Your task to perform on an android device: Go to location settings Image 0: 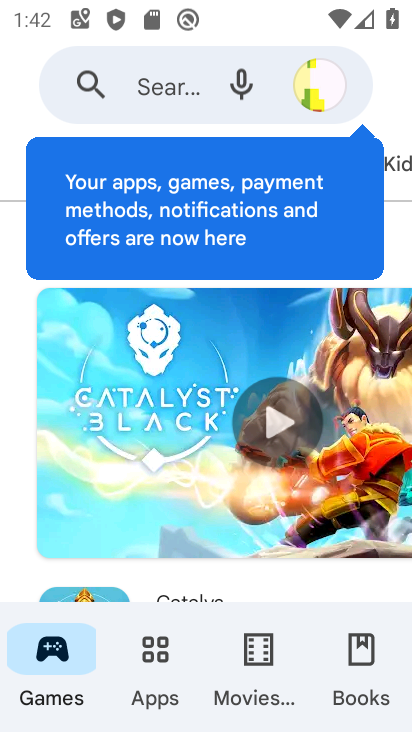
Step 0: press home button
Your task to perform on an android device: Go to location settings Image 1: 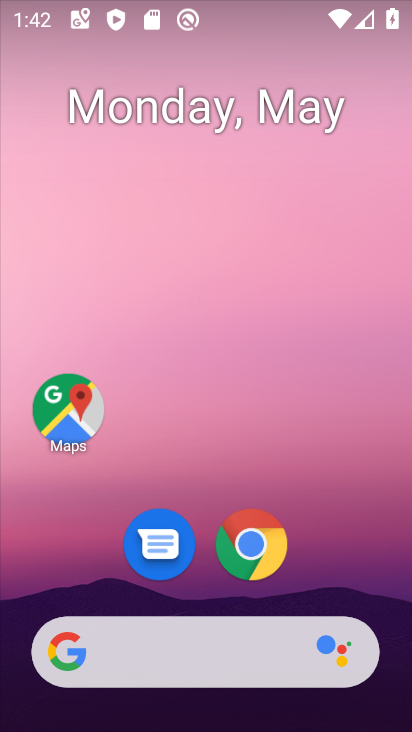
Step 1: drag from (373, 593) to (379, 244)
Your task to perform on an android device: Go to location settings Image 2: 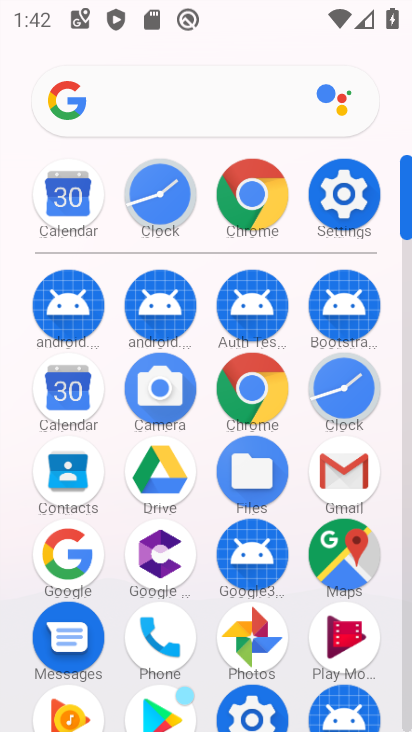
Step 2: click (350, 210)
Your task to perform on an android device: Go to location settings Image 3: 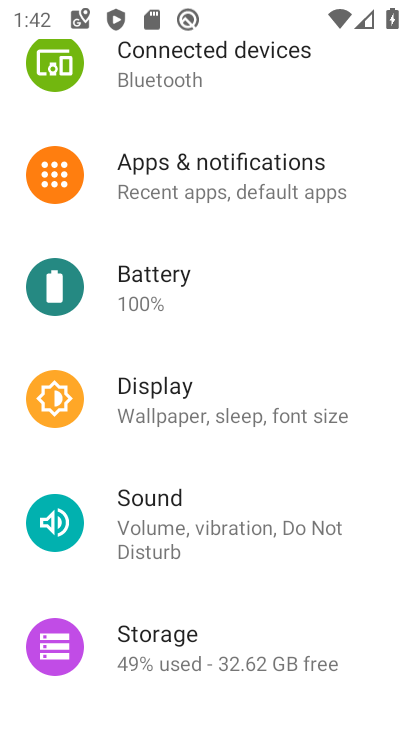
Step 3: drag from (357, 170) to (352, 312)
Your task to perform on an android device: Go to location settings Image 4: 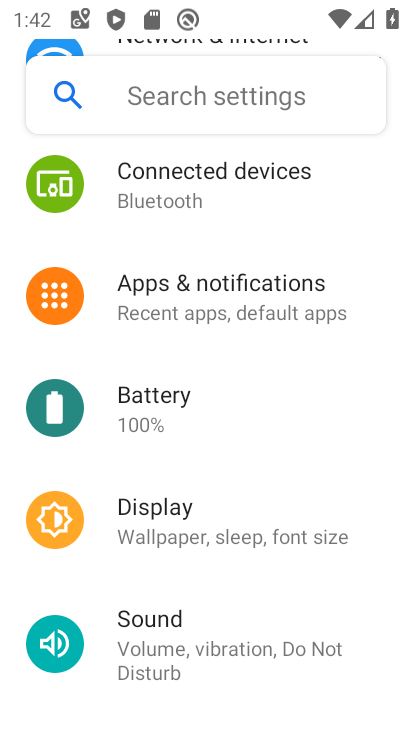
Step 4: drag from (351, 188) to (352, 356)
Your task to perform on an android device: Go to location settings Image 5: 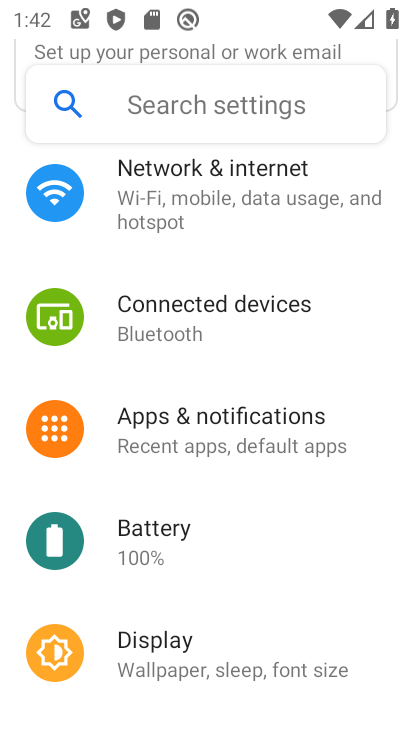
Step 5: drag from (356, 169) to (357, 368)
Your task to perform on an android device: Go to location settings Image 6: 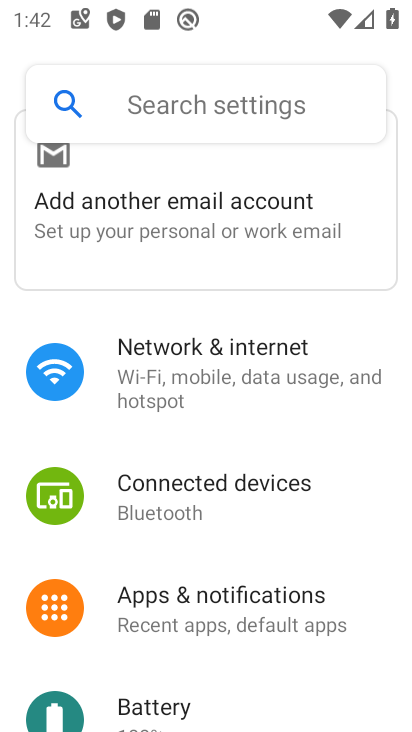
Step 6: drag from (353, 188) to (345, 395)
Your task to perform on an android device: Go to location settings Image 7: 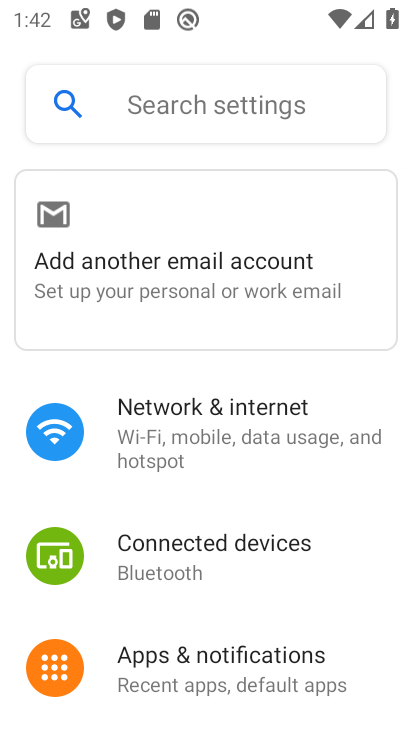
Step 7: drag from (345, 411) to (357, 283)
Your task to perform on an android device: Go to location settings Image 8: 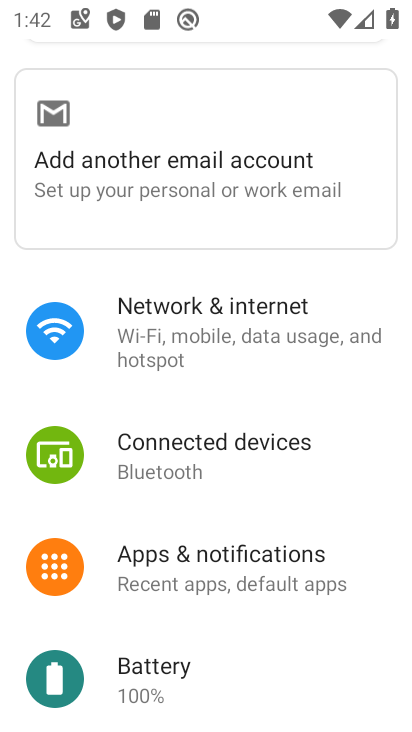
Step 8: drag from (347, 450) to (350, 290)
Your task to perform on an android device: Go to location settings Image 9: 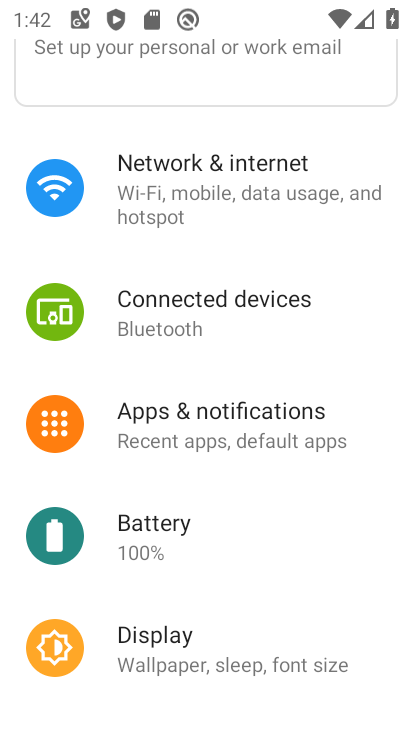
Step 9: drag from (352, 509) to (358, 364)
Your task to perform on an android device: Go to location settings Image 10: 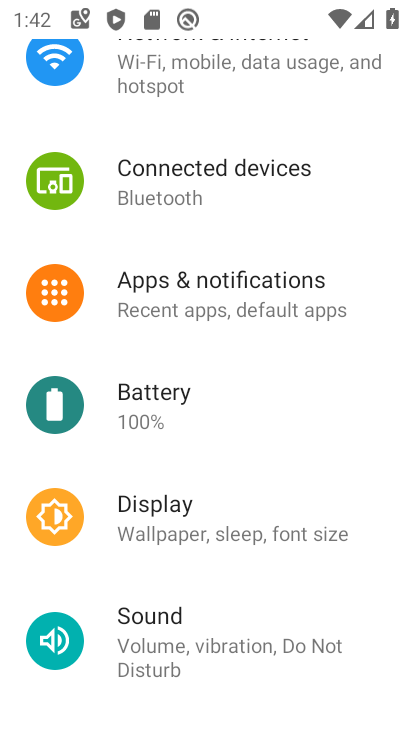
Step 10: drag from (358, 508) to (371, 380)
Your task to perform on an android device: Go to location settings Image 11: 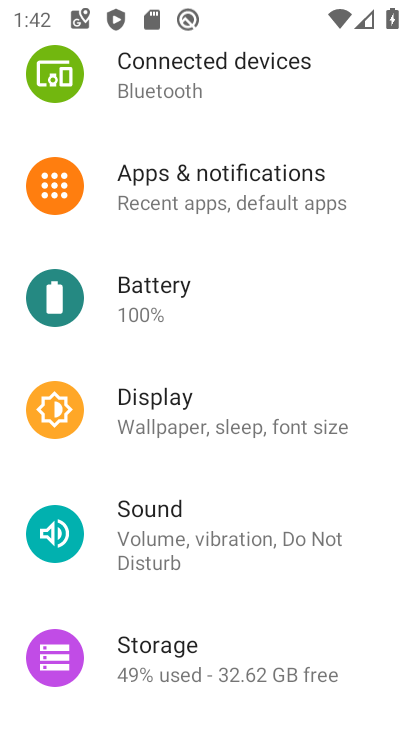
Step 11: drag from (354, 524) to (362, 429)
Your task to perform on an android device: Go to location settings Image 12: 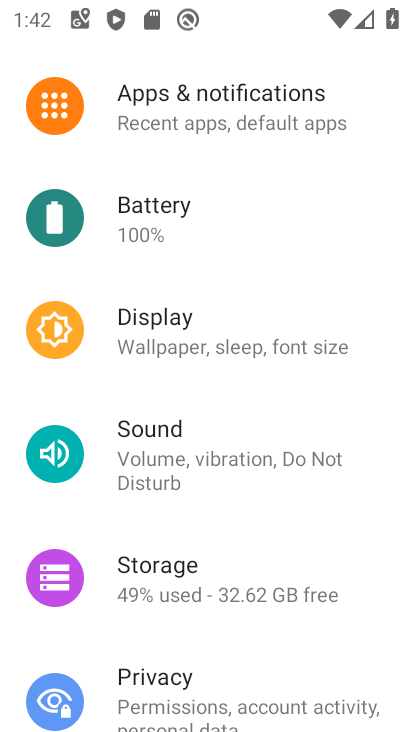
Step 12: drag from (356, 503) to (363, 425)
Your task to perform on an android device: Go to location settings Image 13: 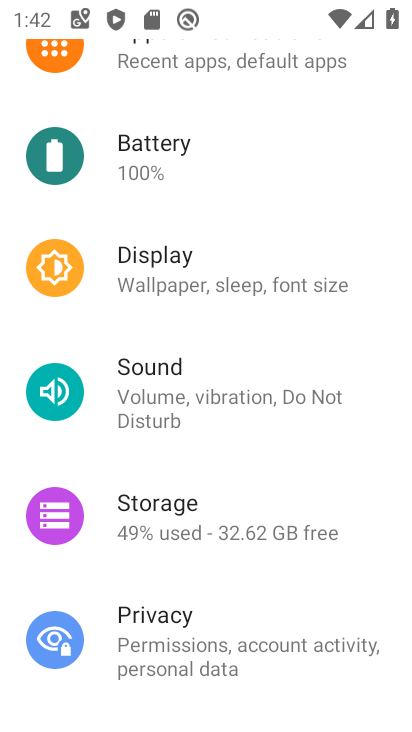
Step 13: drag from (349, 523) to (353, 397)
Your task to perform on an android device: Go to location settings Image 14: 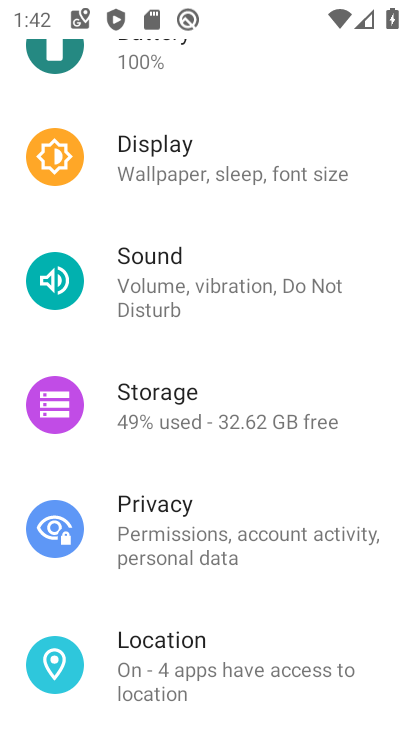
Step 14: drag from (341, 555) to (348, 426)
Your task to perform on an android device: Go to location settings Image 15: 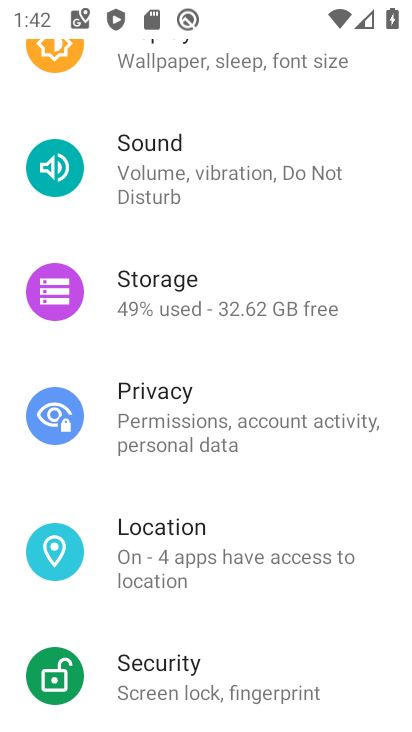
Step 15: drag from (329, 520) to (337, 420)
Your task to perform on an android device: Go to location settings Image 16: 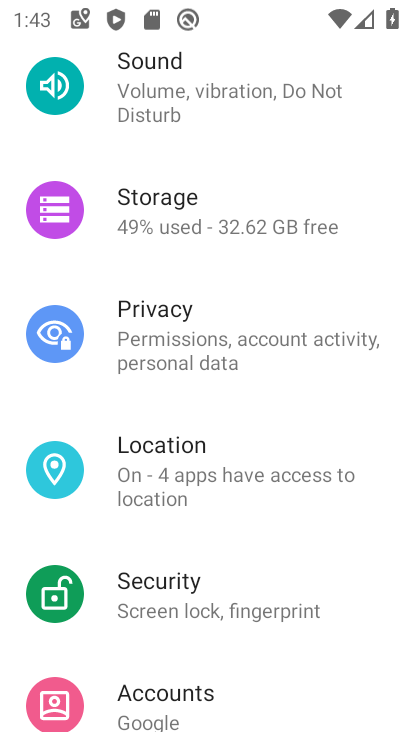
Step 16: click (326, 474)
Your task to perform on an android device: Go to location settings Image 17: 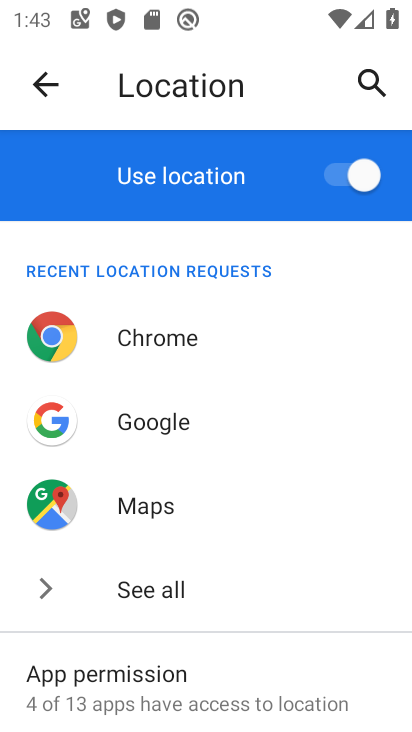
Step 17: task complete